Your task to perform on an android device: Search for seafood restaurants on Google Maps Image 0: 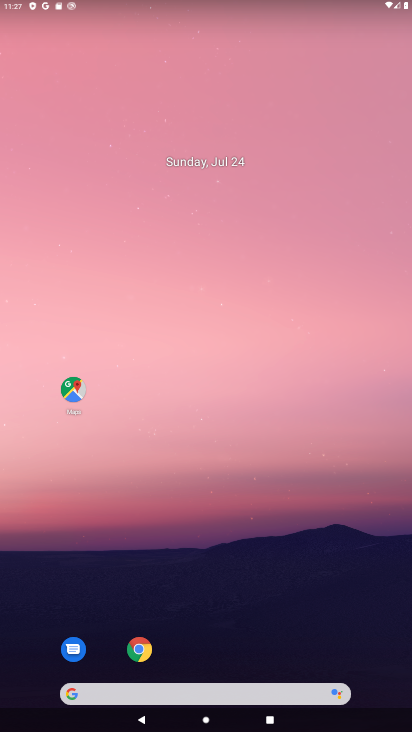
Step 0: click (68, 388)
Your task to perform on an android device: Search for seafood restaurants on Google Maps Image 1: 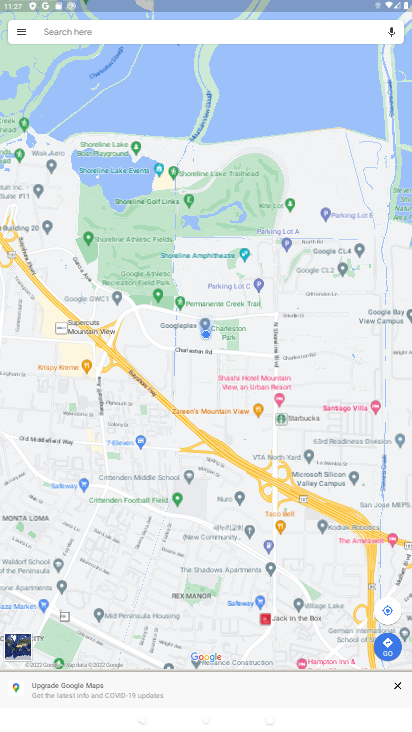
Step 1: click (101, 28)
Your task to perform on an android device: Search for seafood restaurants on Google Maps Image 2: 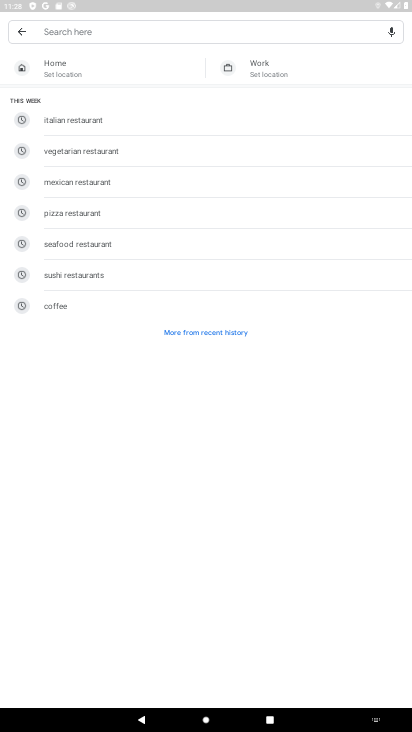
Step 2: click (101, 239)
Your task to perform on an android device: Search for seafood restaurants on Google Maps Image 3: 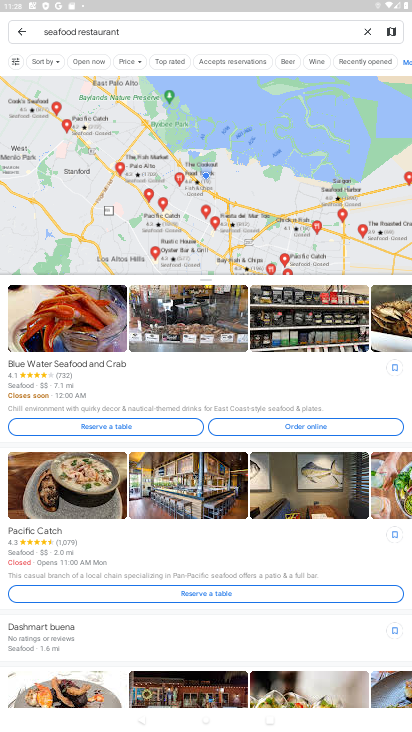
Step 3: task complete